Your task to perform on an android device: Search for Italian restaurants on Maps Image 0: 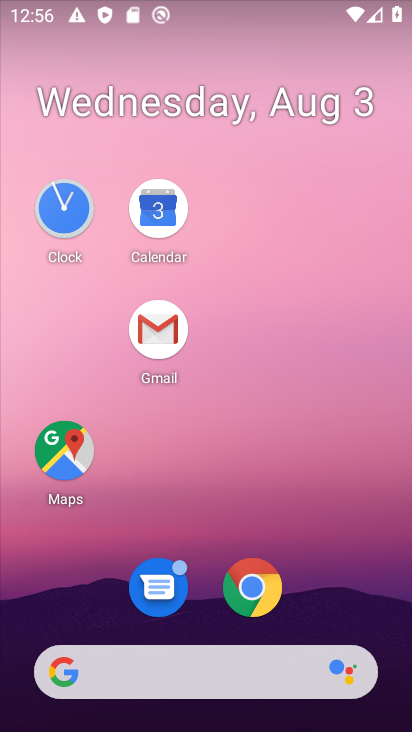
Step 0: click (76, 443)
Your task to perform on an android device: Search for Italian restaurants on Maps Image 1: 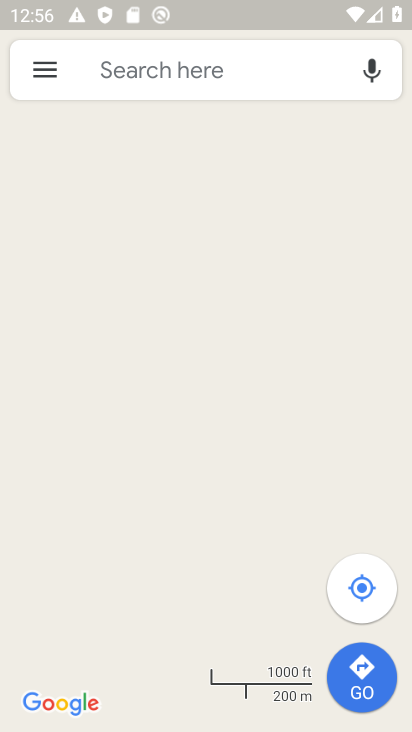
Step 1: click (178, 74)
Your task to perform on an android device: Search for Italian restaurants on Maps Image 2: 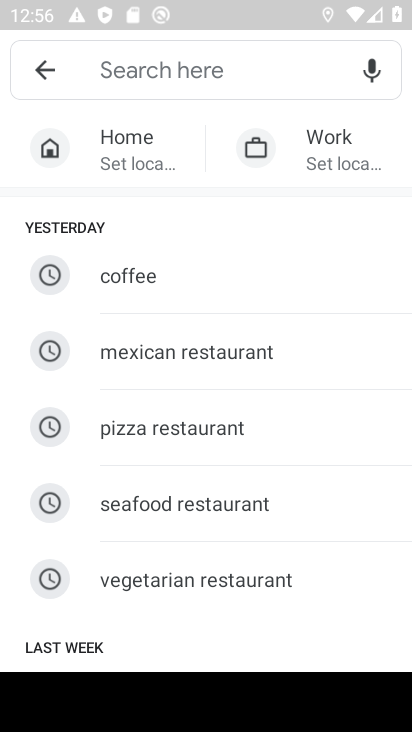
Step 2: type "italian "
Your task to perform on an android device: Search for Italian restaurants on Maps Image 3: 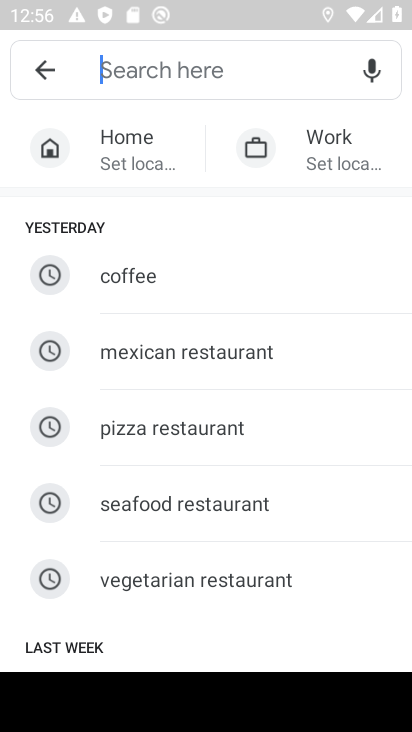
Step 3: click (308, 222)
Your task to perform on an android device: Search for Italian restaurants on Maps Image 4: 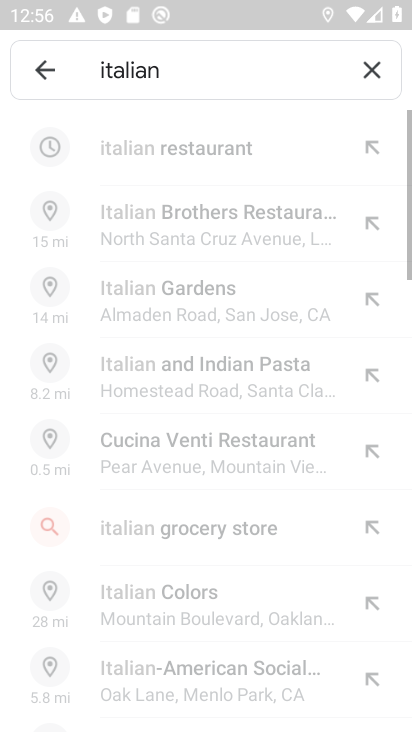
Step 4: click (246, 137)
Your task to perform on an android device: Search for Italian restaurants on Maps Image 5: 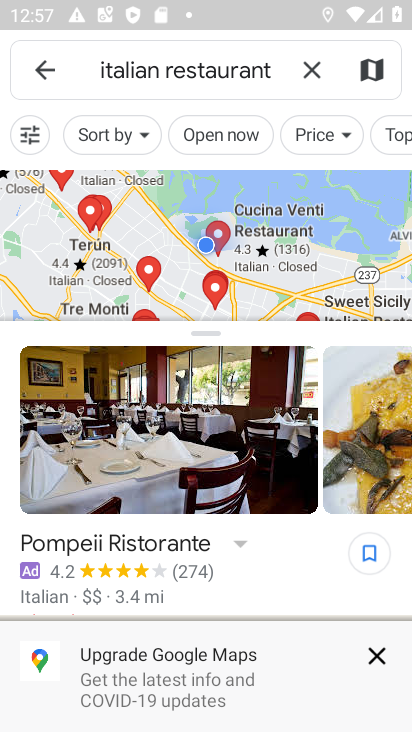
Step 5: task complete